Your task to perform on an android device: Check the weather Image 0: 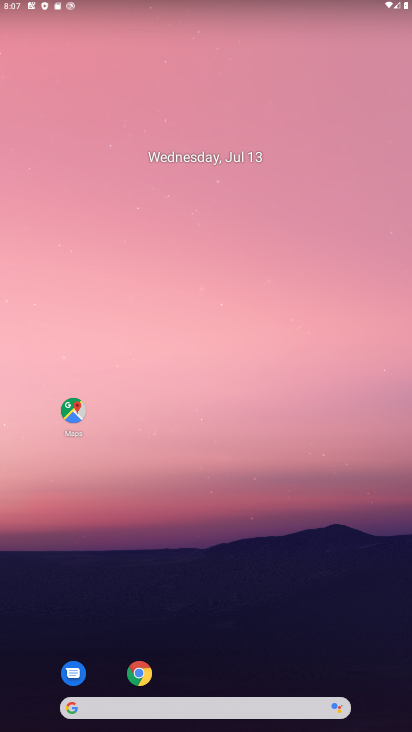
Step 0: drag from (318, 630) to (246, 164)
Your task to perform on an android device: Check the weather Image 1: 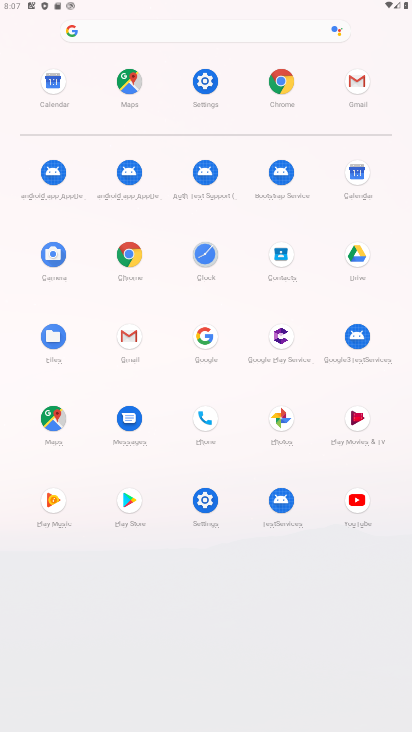
Step 1: click (130, 255)
Your task to perform on an android device: Check the weather Image 2: 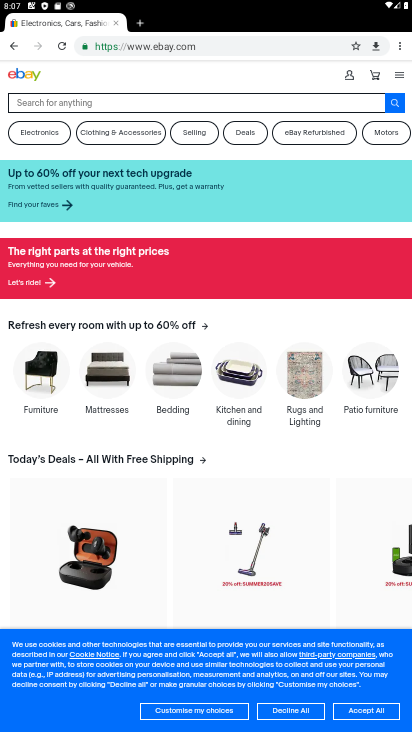
Step 2: click (209, 47)
Your task to perform on an android device: Check the weather Image 3: 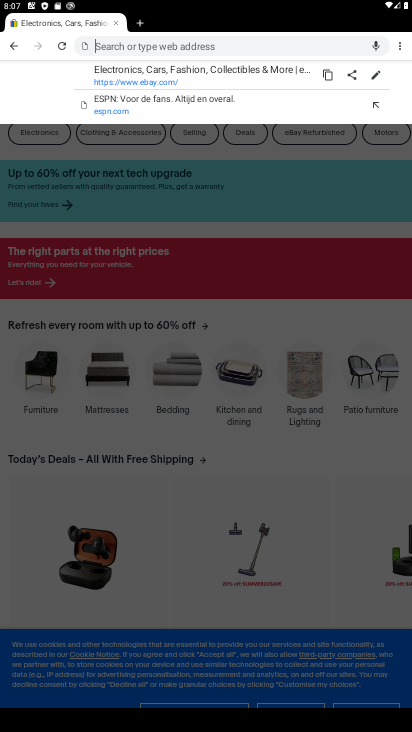
Step 3: type "weather"
Your task to perform on an android device: Check the weather Image 4: 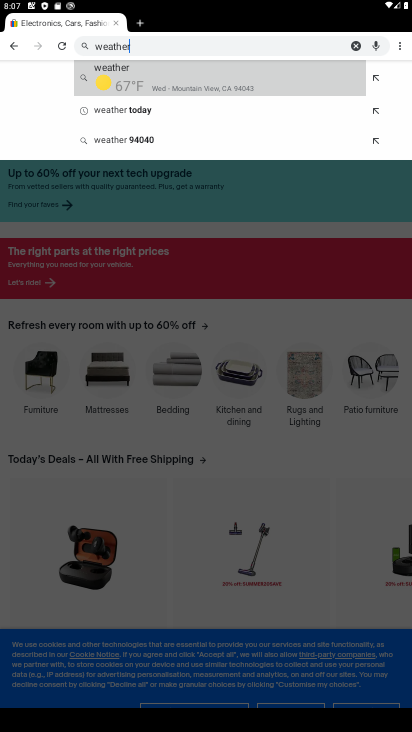
Step 4: click (145, 76)
Your task to perform on an android device: Check the weather Image 5: 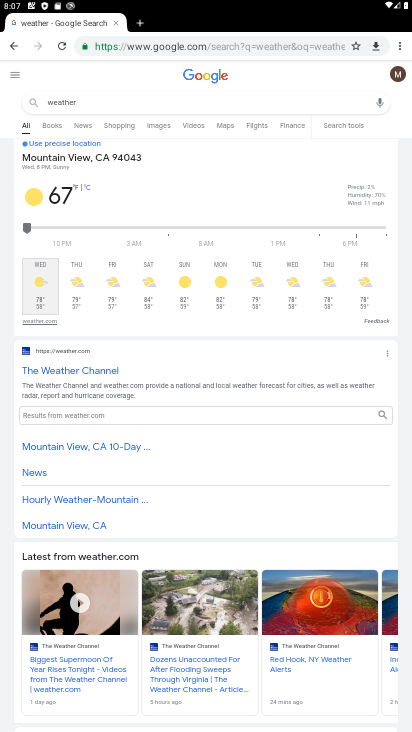
Step 5: task complete